Your task to perform on an android device: check out phone information Image 0: 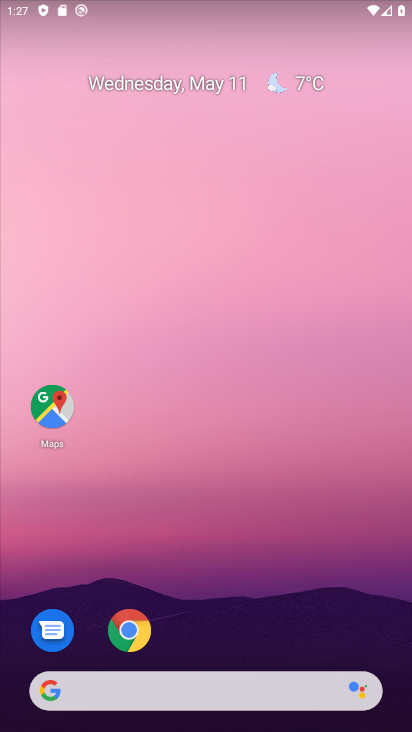
Step 0: drag from (321, 659) to (190, 16)
Your task to perform on an android device: check out phone information Image 1: 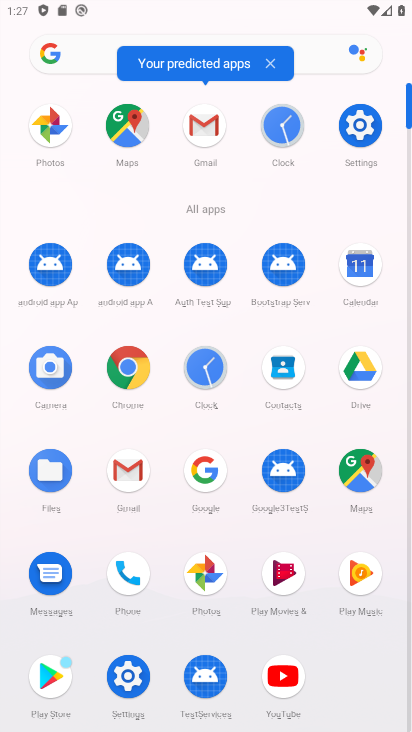
Step 1: click (130, 667)
Your task to perform on an android device: check out phone information Image 2: 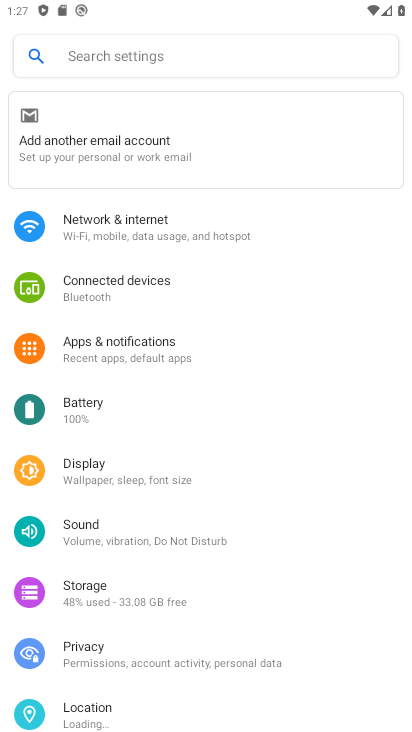
Step 2: drag from (225, 622) to (199, 83)
Your task to perform on an android device: check out phone information Image 3: 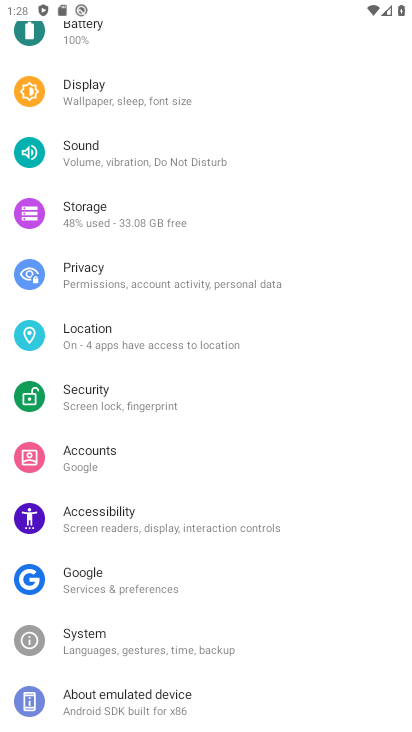
Step 3: click (174, 702)
Your task to perform on an android device: check out phone information Image 4: 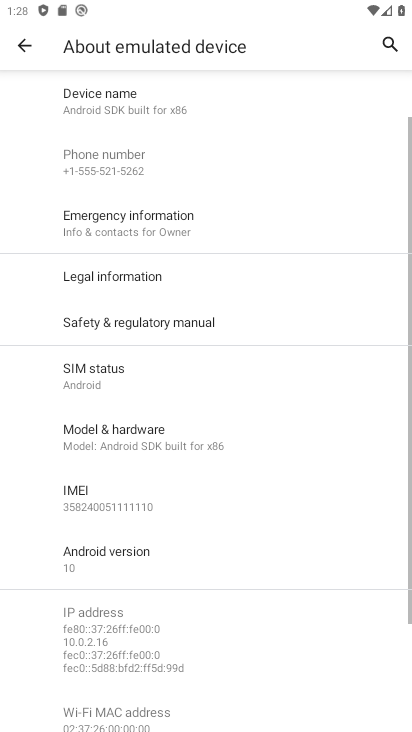
Step 4: task complete